Your task to perform on an android device: Search for flights from San Francisco to Tokyo Image 0: 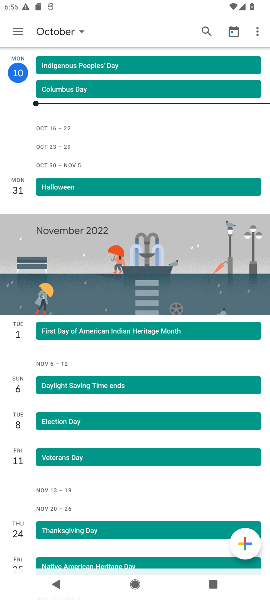
Step 0: press home button
Your task to perform on an android device: Search for flights from San Francisco to Tokyo Image 1: 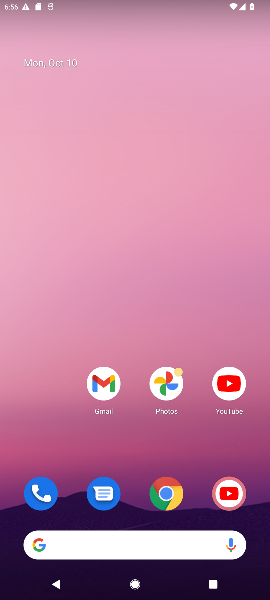
Step 1: drag from (131, 501) to (139, 79)
Your task to perform on an android device: Search for flights from San Francisco to Tokyo Image 2: 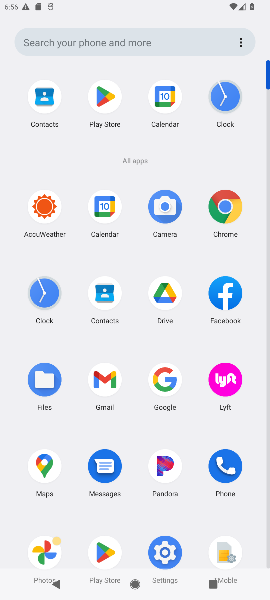
Step 2: click (160, 374)
Your task to perform on an android device: Search for flights from San Francisco to Tokyo Image 3: 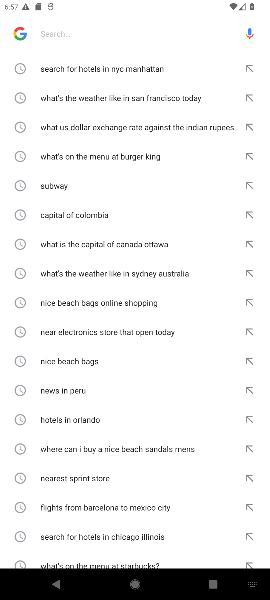
Step 3: type "Play the new Justin Bieber video "
Your task to perform on an android device: Search for flights from San Francisco to Tokyo Image 4: 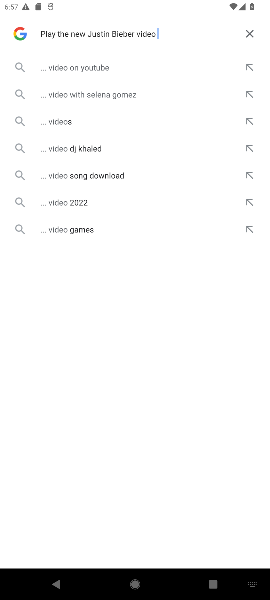
Step 4: click (78, 65)
Your task to perform on an android device: Search for flights from San Francisco to Tokyo Image 5: 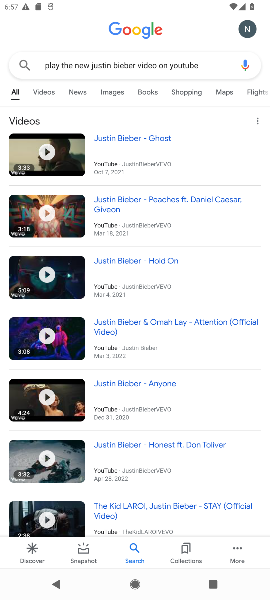
Step 5: click (180, 65)
Your task to perform on an android device: Search for flights from San Francisco to Tokyo Image 6: 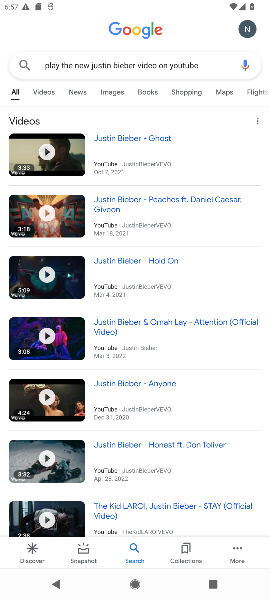
Step 6: click (180, 65)
Your task to perform on an android device: Search for flights from San Francisco to Tokyo Image 7: 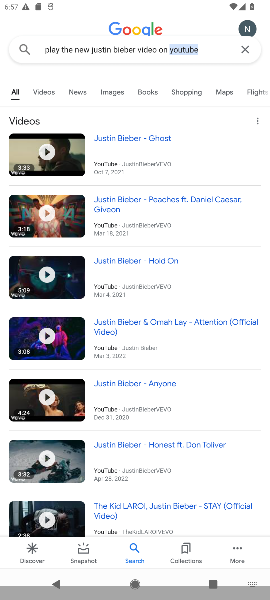
Step 7: click (180, 65)
Your task to perform on an android device: Search for flights from San Francisco to Tokyo Image 8: 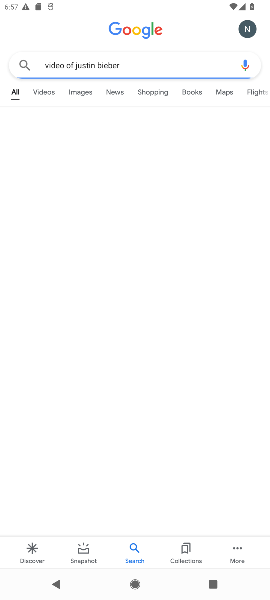
Step 8: click (251, 32)
Your task to perform on an android device: Search for flights from San Francisco to Tokyo Image 9: 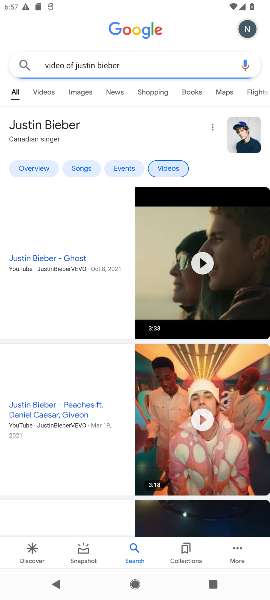
Step 9: click (178, 71)
Your task to perform on an android device: Search for flights from San Francisco to Tokyo Image 10: 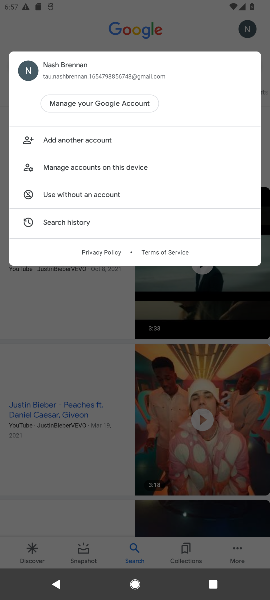
Step 10: click (168, 30)
Your task to perform on an android device: Search for flights from San Francisco to Tokyo Image 11: 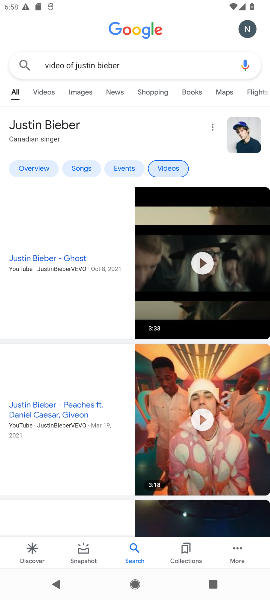
Step 11: click (185, 59)
Your task to perform on an android device: Search for flights from San Francisco to Tokyo Image 12: 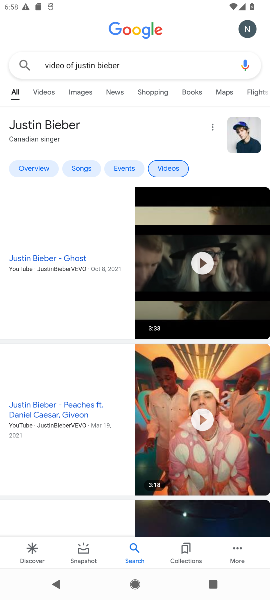
Step 12: click (185, 59)
Your task to perform on an android device: Search for flights from San Francisco to Tokyo Image 13: 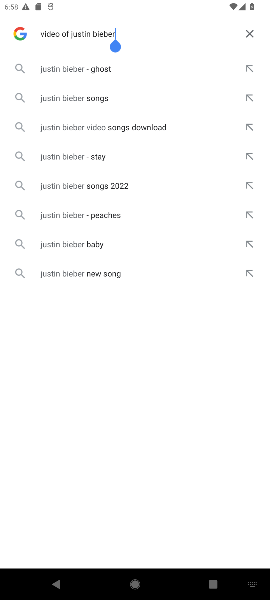
Step 13: click (252, 37)
Your task to perform on an android device: Search for flights from San Francisco to Tokyo Image 14: 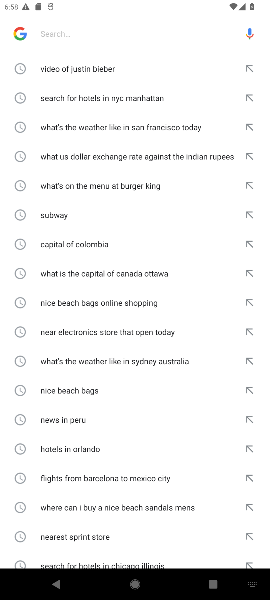
Step 14: type "Search for flights from San Francisco to Tokyo"
Your task to perform on an android device: Search for flights from San Francisco to Tokyo Image 15: 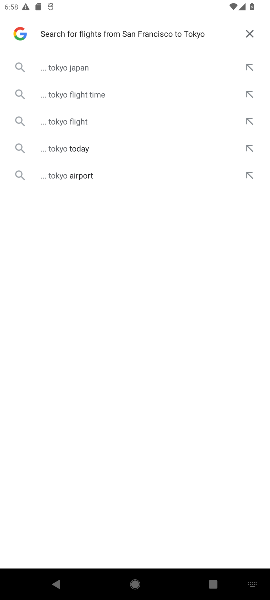
Step 15: click (68, 67)
Your task to perform on an android device: Search for flights from San Francisco to Tokyo Image 16: 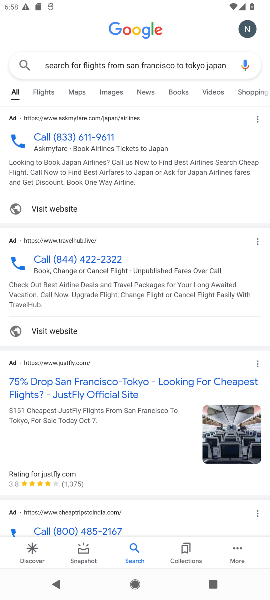
Step 16: click (68, 67)
Your task to perform on an android device: Search for flights from San Francisco to Tokyo Image 17: 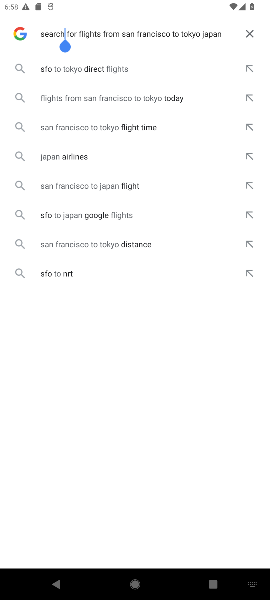
Step 17: task complete